Your task to perform on an android device: Open CNN.com Image 0: 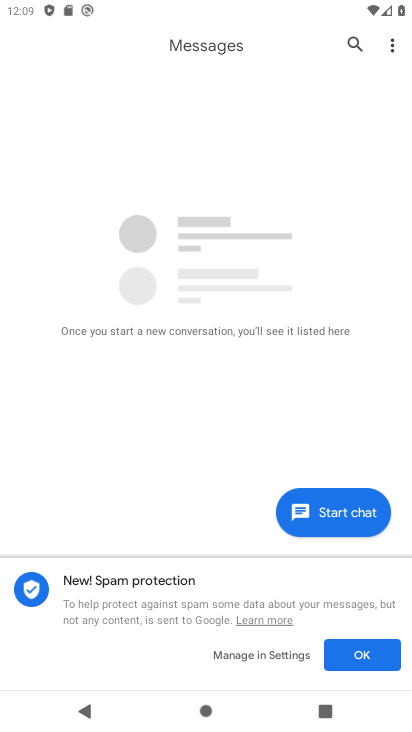
Step 0: press home button
Your task to perform on an android device: Open CNN.com Image 1: 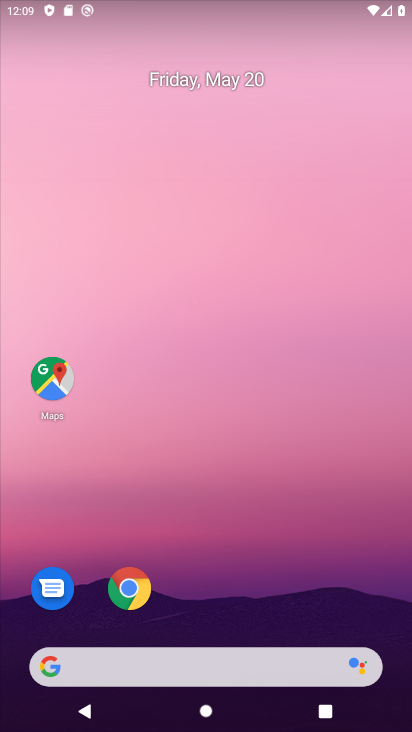
Step 1: click (130, 588)
Your task to perform on an android device: Open CNN.com Image 2: 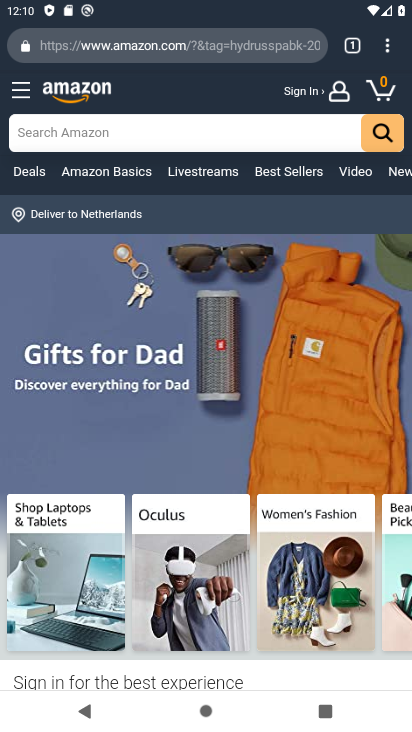
Step 2: click (186, 44)
Your task to perform on an android device: Open CNN.com Image 3: 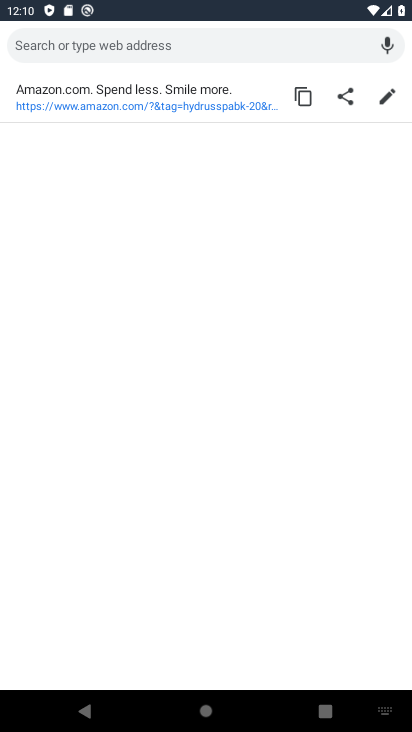
Step 3: type "cnn.com"
Your task to perform on an android device: Open CNN.com Image 4: 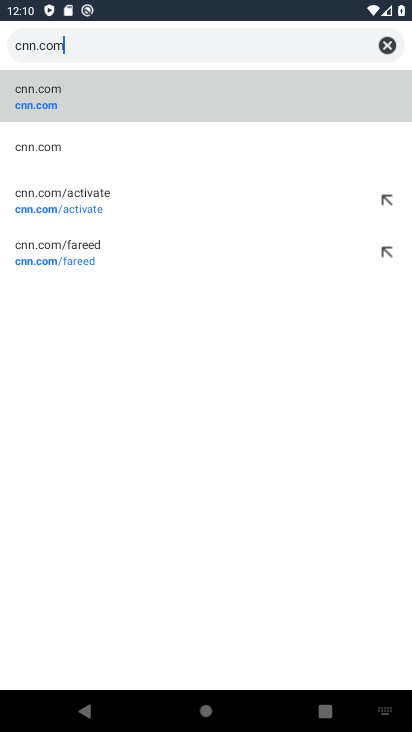
Step 4: click (59, 89)
Your task to perform on an android device: Open CNN.com Image 5: 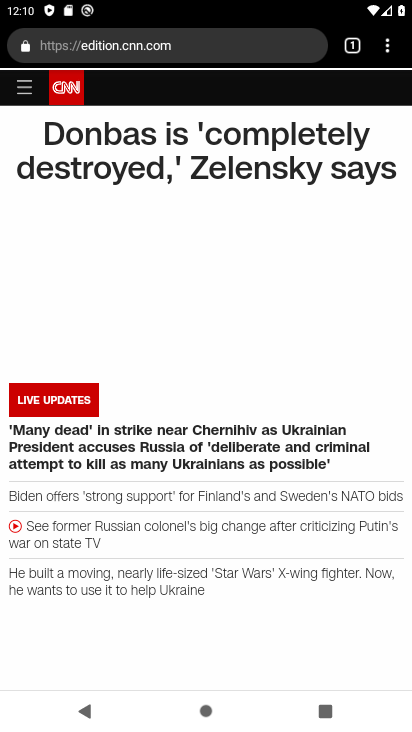
Step 5: task complete